Your task to perform on an android device: Open the calendar app, open the side menu, and click the "Day" option Image 0: 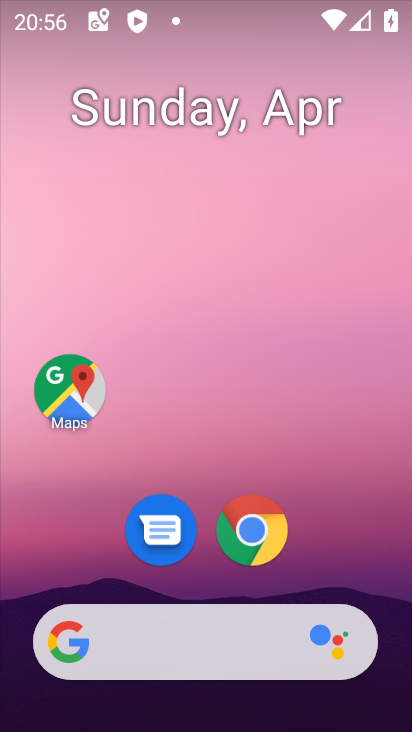
Step 0: drag from (202, 587) to (237, 52)
Your task to perform on an android device: Open the calendar app, open the side menu, and click the "Day" option Image 1: 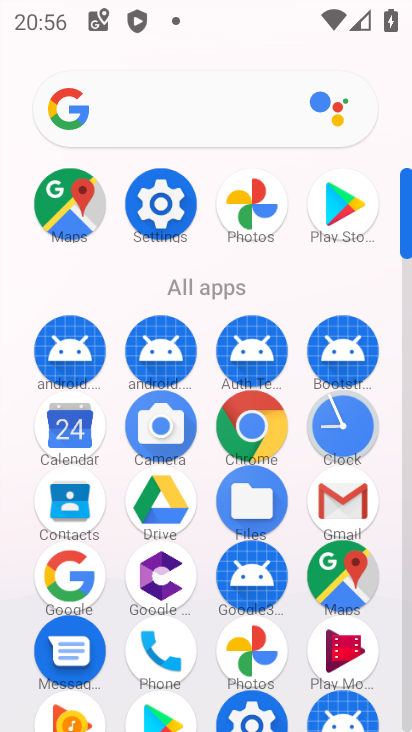
Step 1: click (73, 417)
Your task to perform on an android device: Open the calendar app, open the side menu, and click the "Day" option Image 2: 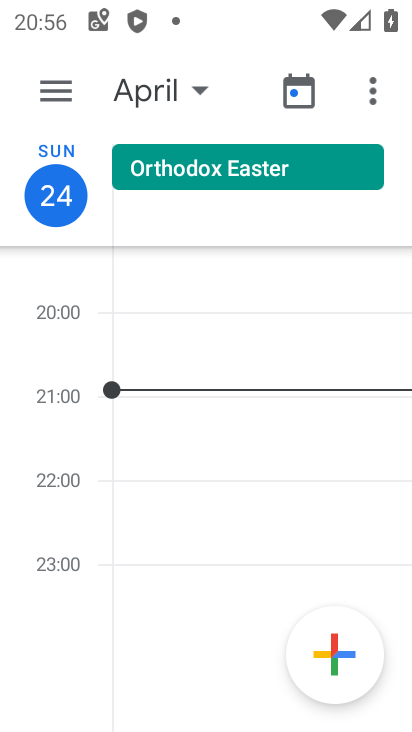
Step 2: click (44, 91)
Your task to perform on an android device: Open the calendar app, open the side menu, and click the "Day" option Image 3: 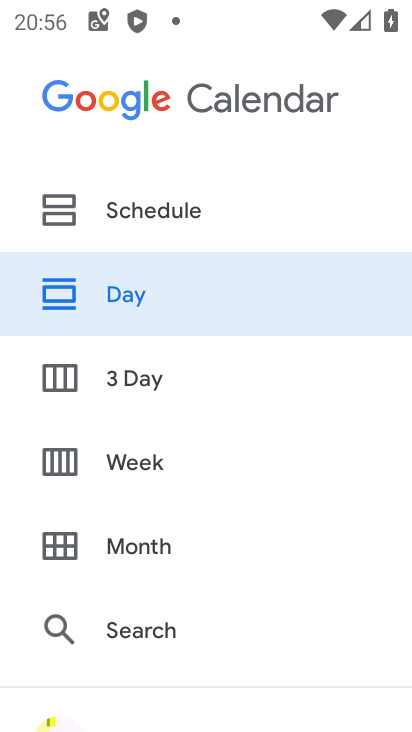
Step 3: click (151, 304)
Your task to perform on an android device: Open the calendar app, open the side menu, and click the "Day" option Image 4: 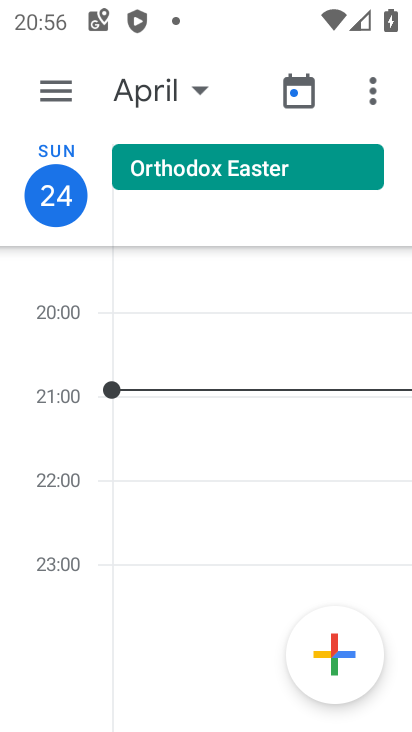
Step 4: task complete